Your task to perform on an android device: set default search engine in the chrome app Image 0: 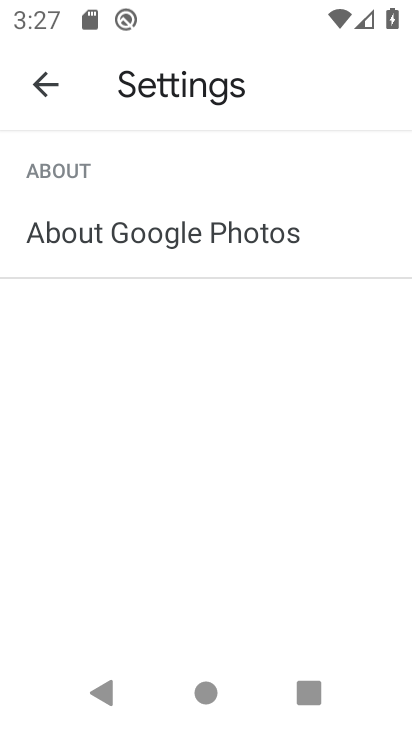
Step 0: click (27, 102)
Your task to perform on an android device: set default search engine in the chrome app Image 1: 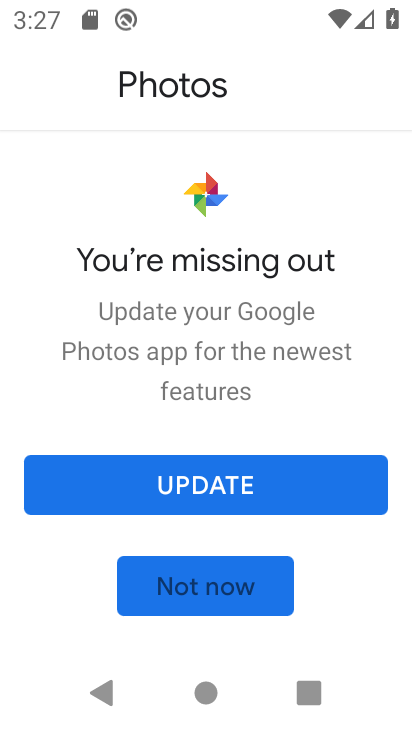
Step 1: press home button
Your task to perform on an android device: set default search engine in the chrome app Image 2: 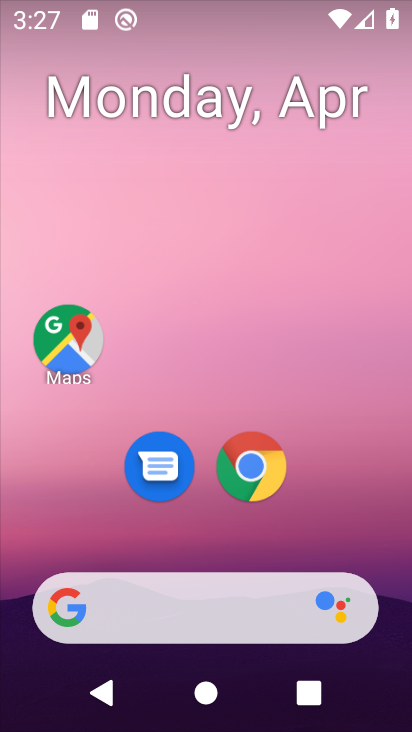
Step 2: click (250, 482)
Your task to perform on an android device: set default search engine in the chrome app Image 3: 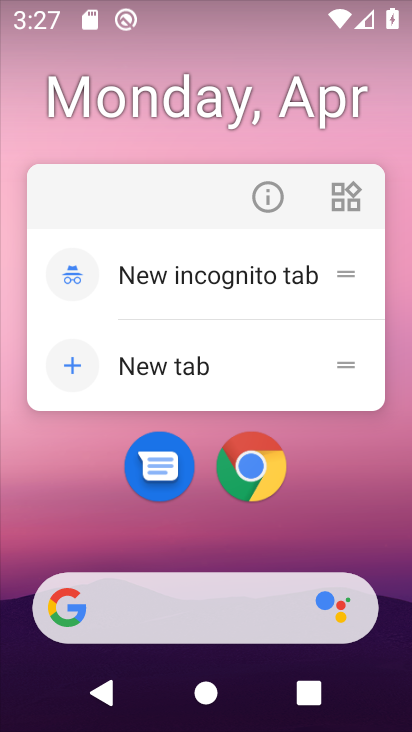
Step 3: click (263, 199)
Your task to perform on an android device: set default search engine in the chrome app Image 4: 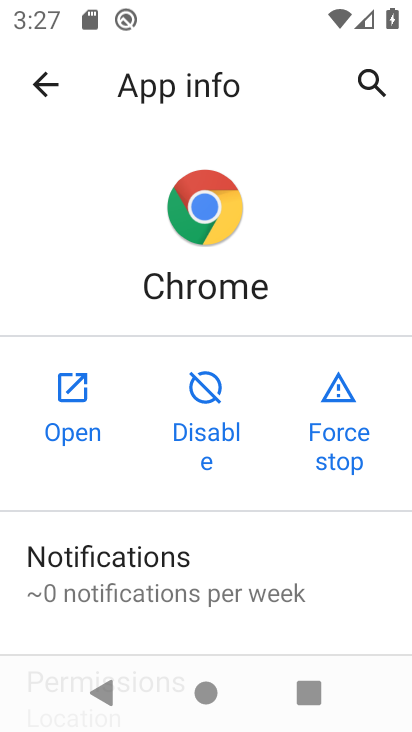
Step 4: click (80, 431)
Your task to perform on an android device: set default search engine in the chrome app Image 5: 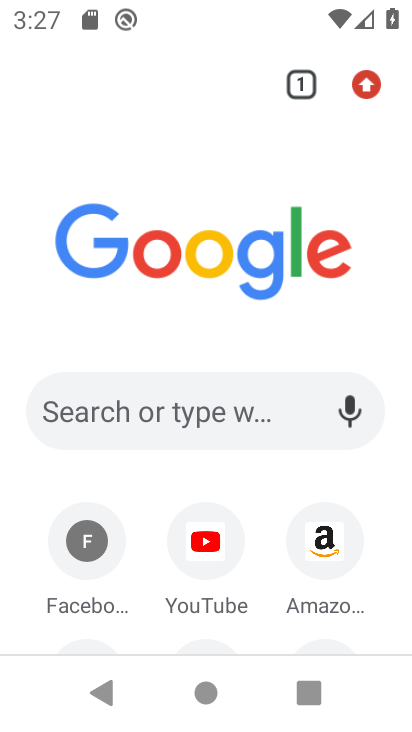
Step 5: click (363, 91)
Your task to perform on an android device: set default search engine in the chrome app Image 6: 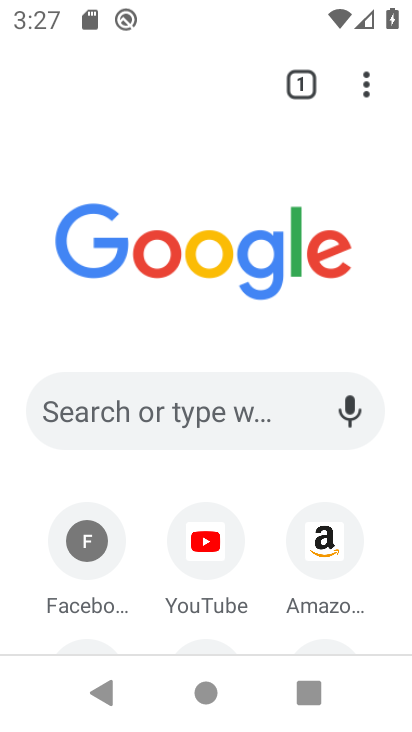
Step 6: click (357, 85)
Your task to perform on an android device: set default search engine in the chrome app Image 7: 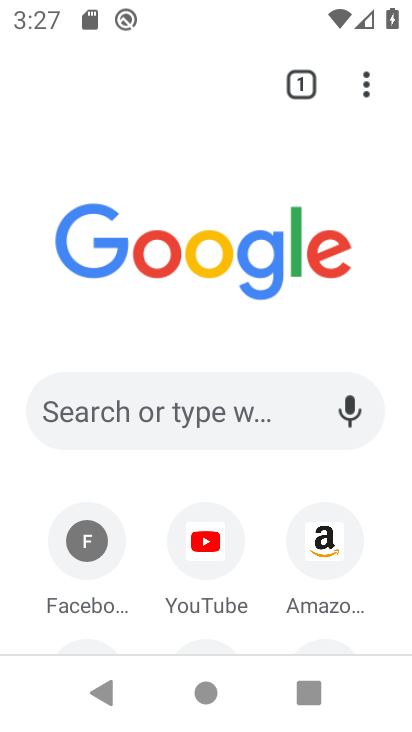
Step 7: click (357, 91)
Your task to perform on an android device: set default search engine in the chrome app Image 8: 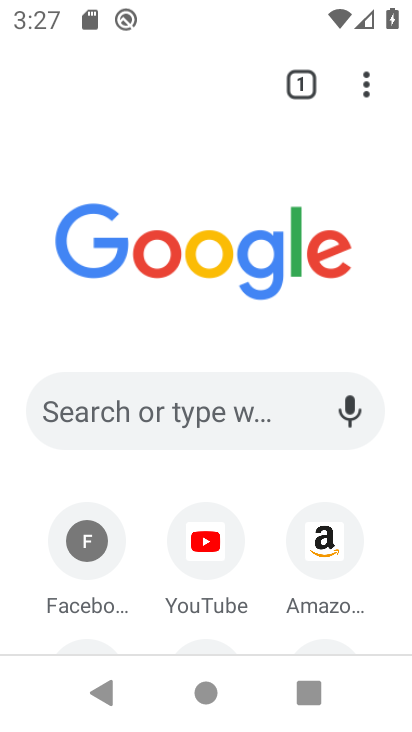
Step 8: click (376, 92)
Your task to perform on an android device: set default search engine in the chrome app Image 9: 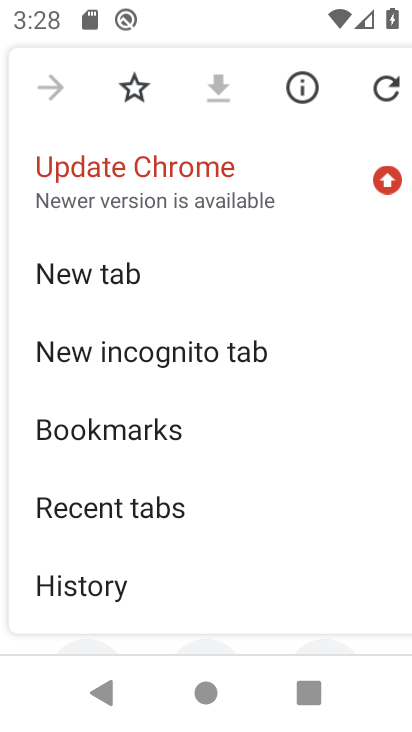
Step 9: drag from (163, 530) to (216, 207)
Your task to perform on an android device: set default search engine in the chrome app Image 10: 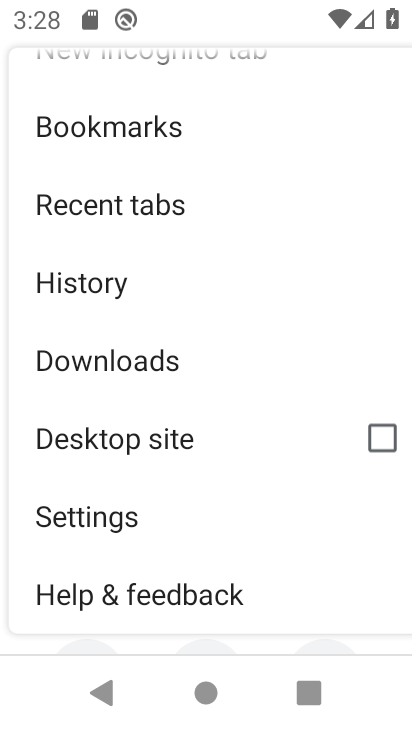
Step 10: click (149, 527)
Your task to perform on an android device: set default search engine in the chrome app Image 11: 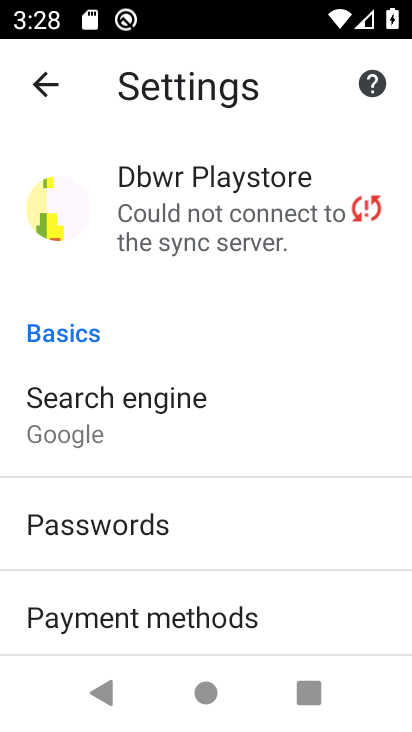
Step 11: click (193, 418)
Your task to perform on an android device: set default search engine in the chrome app Image 12: 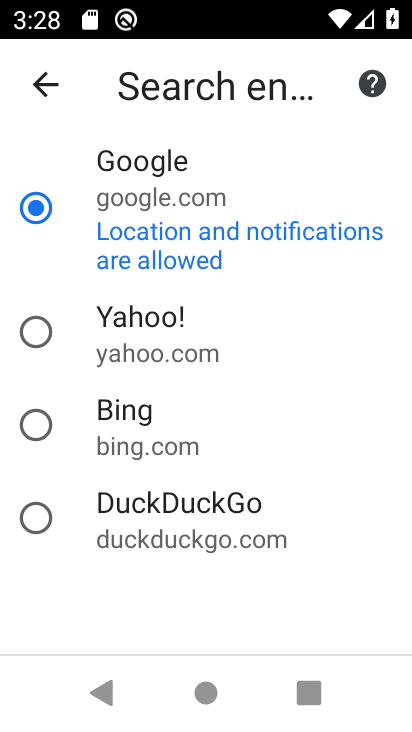
Step 12: task complete